Your task to perform on an android device: Open sound settings Image 0: 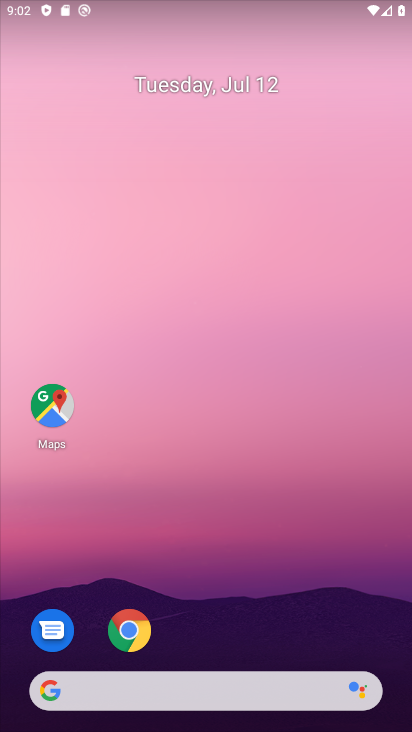
Step 0: drag from (295, 565) to (242, 5)
Your task to perform on an android device: Open sound settings Image 1: 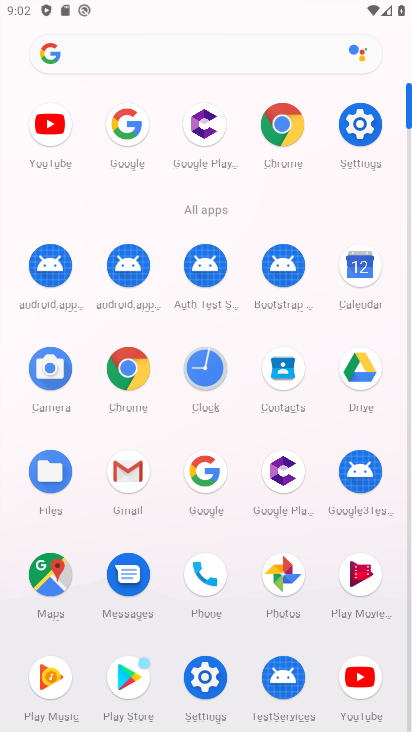
Step 1: click (361, 137)
Your task to perform on an android device: Open sound settings Image 2: 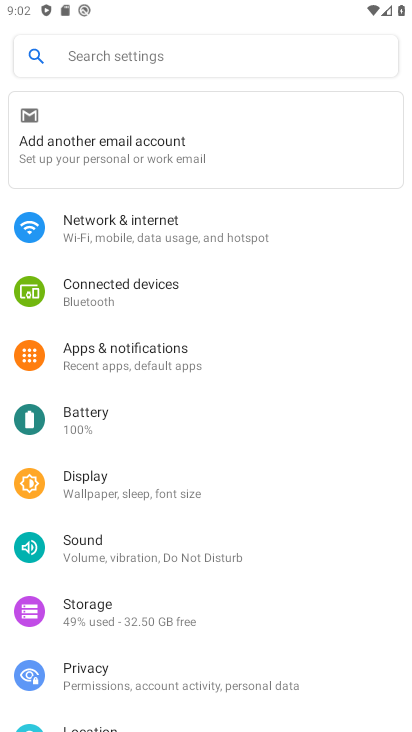
Step 2: click (127, 545)
Your task to perform on an android device: Open sound settings Image 3: 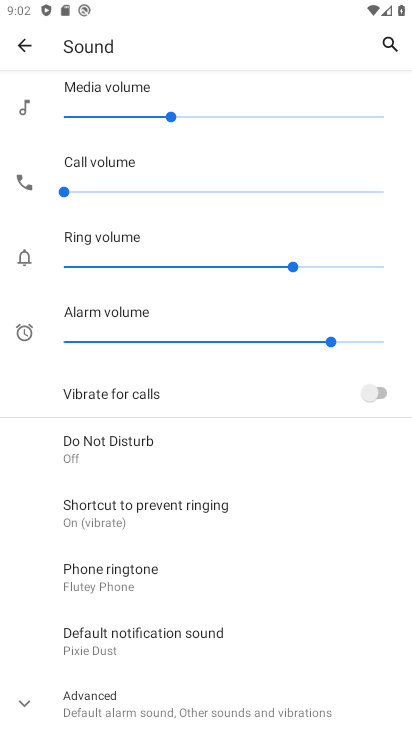
Step 3: task complete